Your task to perform on an android device: toggle translation in the chrome app Image 0: 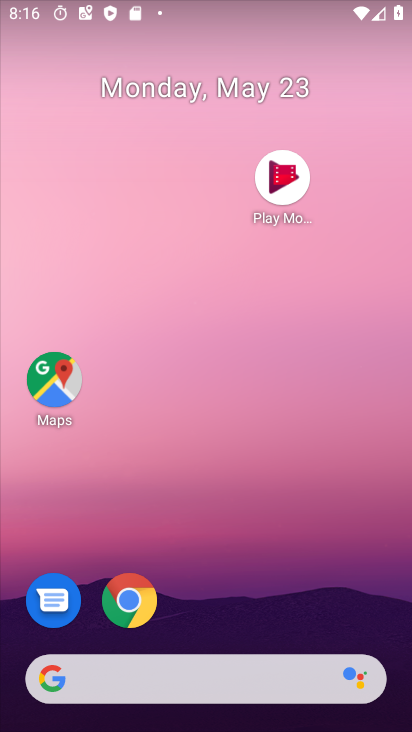
Step 0: drag from (308, 671) to (239, 255)
Your task to perform on an android device: toggle translation in the chrome app Image 1: 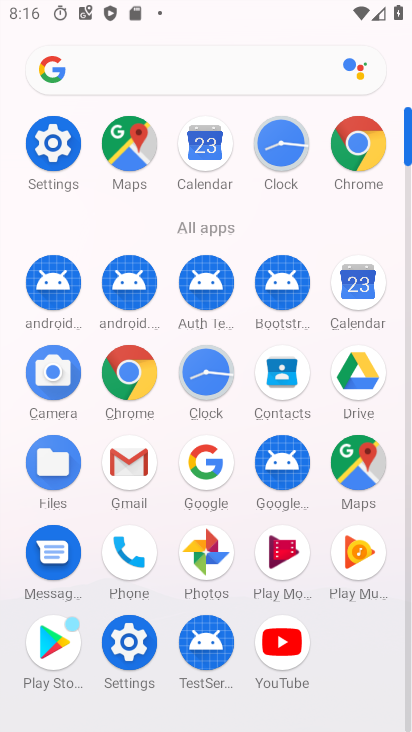
Step 1: click (345, 156)
Your task to perform on an android device: toggle translation in the chrome app Image 2: 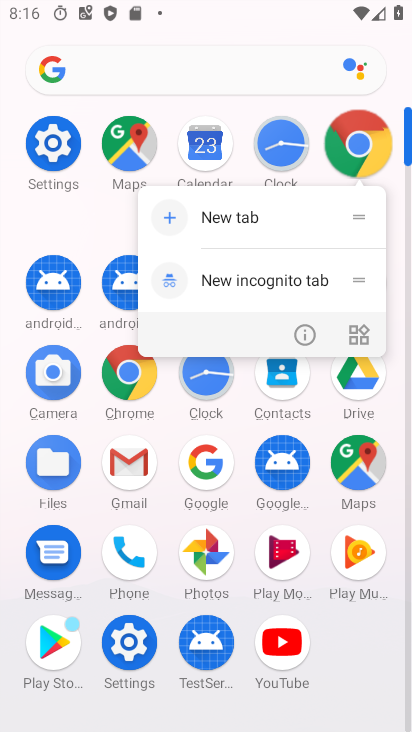
Step 2: click (345, 156)
Your task to perform on an android device: toggle translation in the chrome app Image 3: 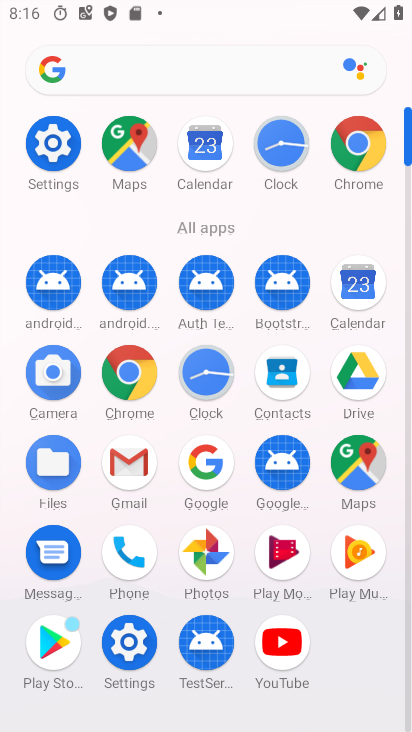
Step 3: click (352, 153)
Your task to perform on an android device: toggle translation in the chrome app Image 4: 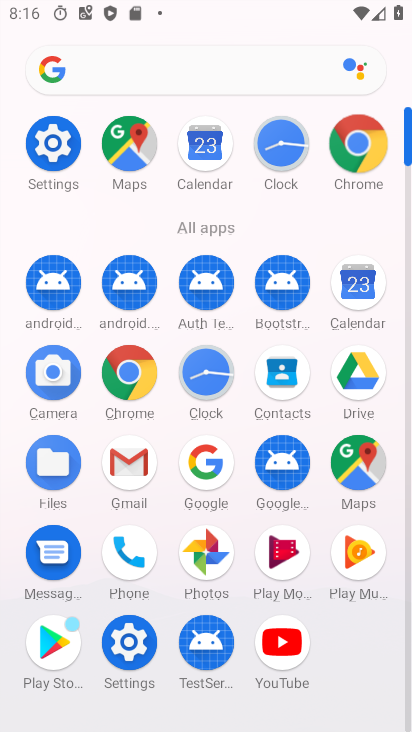
Step 4: click (353, 153)
Your task to perform on an android device: toggle translation in the chrome app Image 5: 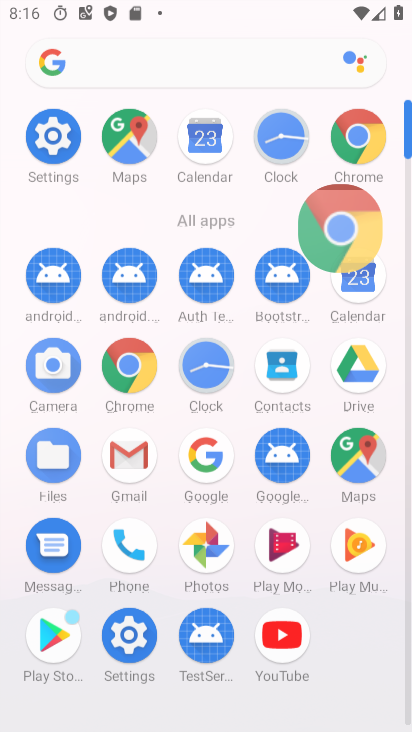
Step 5: click (352, 152)
Your task to perform on an android device: toggle translation in the chrome app Image 6: 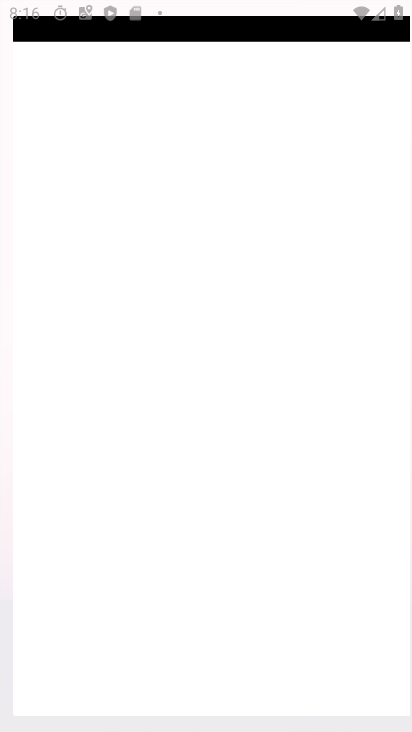
Step 6: click (351, 150)
Your task to perform on an android device: toggle translation in the chrome app Image 7: 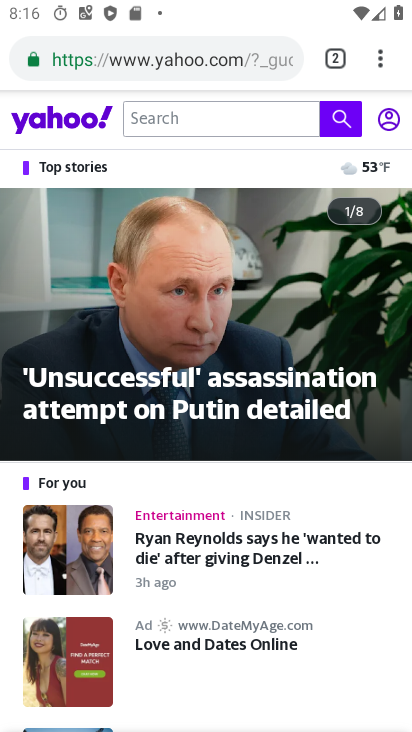
Step 7: drag from (388, 72) to (166, 623)
Your task to perform on an android device: toggle translation in the chrome app Image 8: 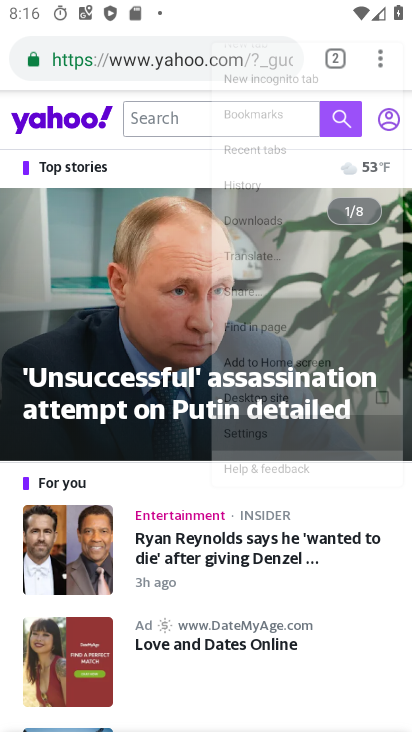
Step 8: click (166, 615)
Your task to perform on an android device: toggle translation in the chrome app Image 9: 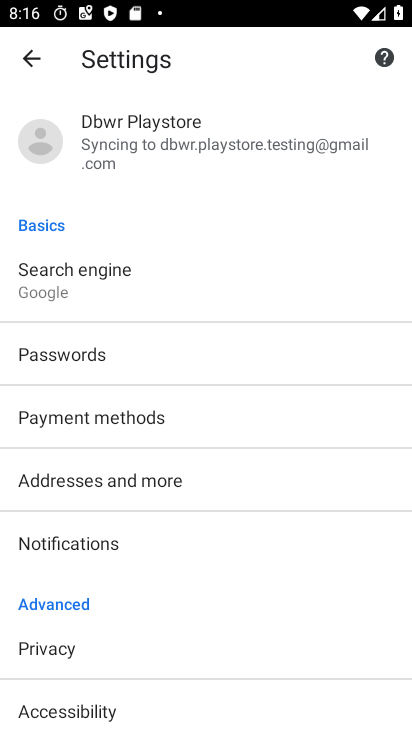
Step 9: drag from (148, 532) to (124, 146)
Your task to perform on an android device: toggle translation in the chrome app Image 10: 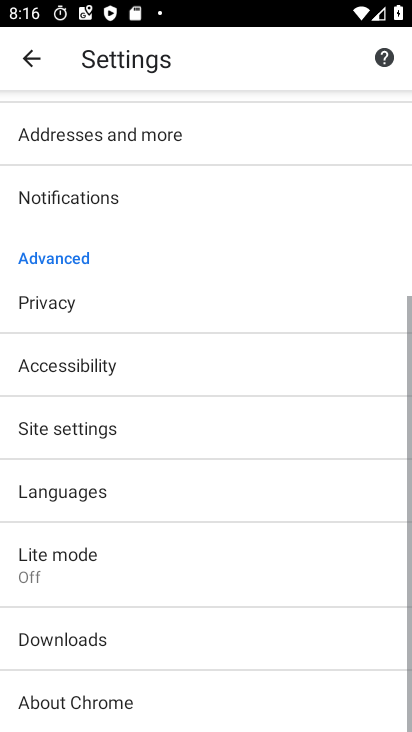
Step 10: drag from (217, 519) to (122, 114)
Your task to perform on an android device: toggle translation in the chrome app Image 11: 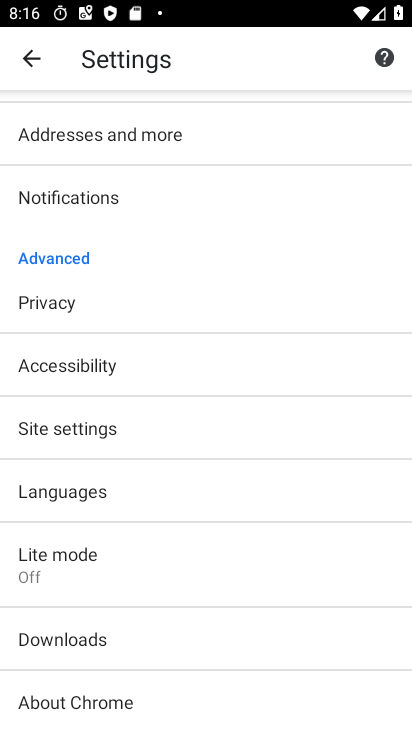
Step 11: click (58, 493)
Your task to perform on an android device: toggle translation in the chrome app Image 12: 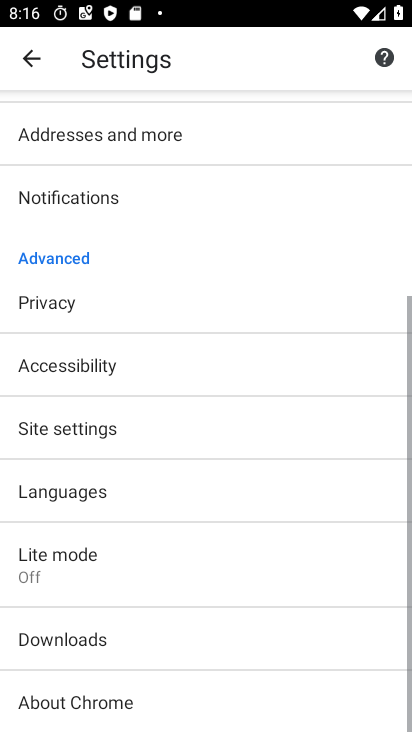
Step 12: click (58, 493)
Your task to perform on an android device: toggle translation in the chrome app Image 13: 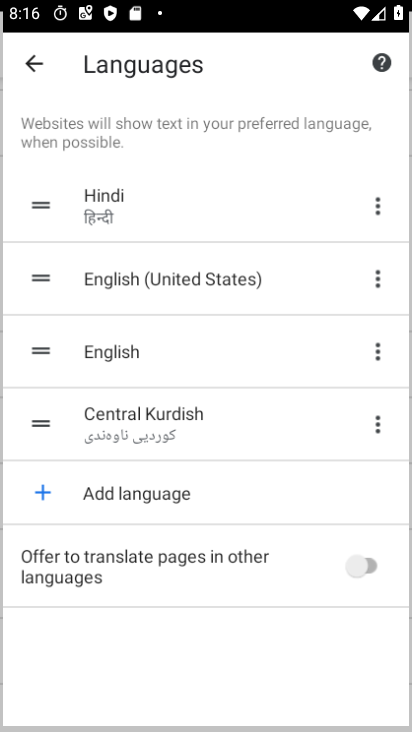
Step 13: click (57, 492)
Your task to perform on an android device: toggle translation in the chrome app Image 14: 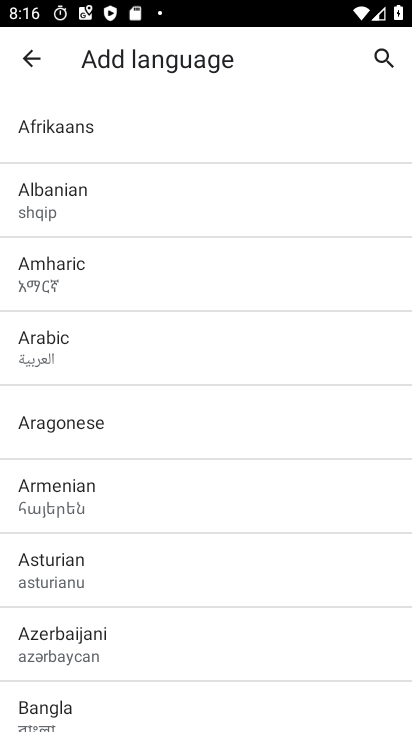
Step 14: click (31, 54)
Your task to perform on an android device: toggle translation in the chrome app Image 15: 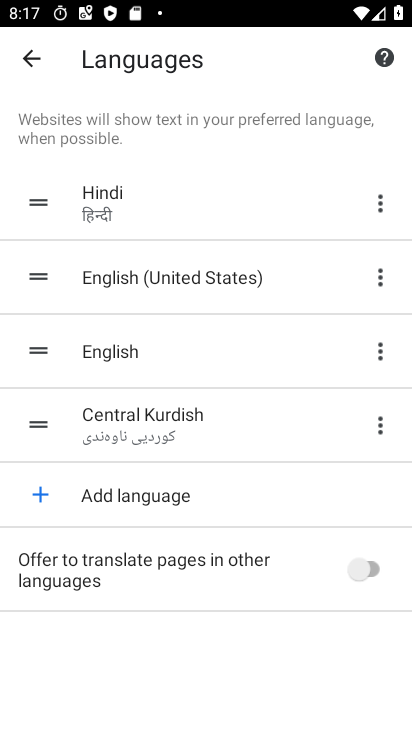
Step 15: click (369, 568)
Your task to perform on an android device: toggle translation in the chrome app Image 16: 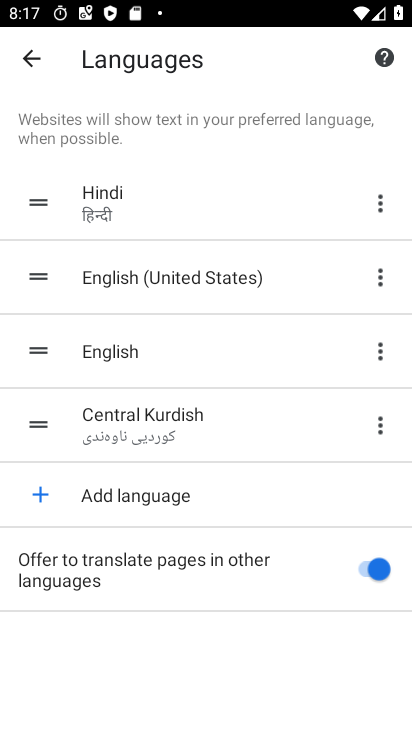
Step 16: task complete